Your task to perform on an android device: Open Reddit.com Image 0: 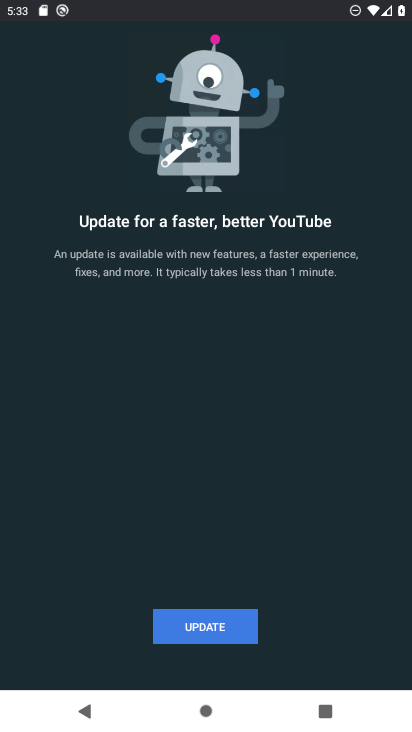
Step 0: press home button
Your task to perform on an android device: Open Reddit.com Image 1: 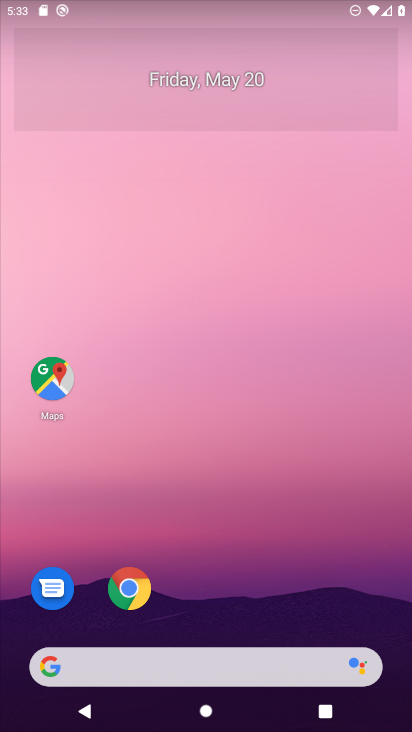
Step 1: click (127, 599)
Your task to perform on an android device: Open Reddit.com Image 2: 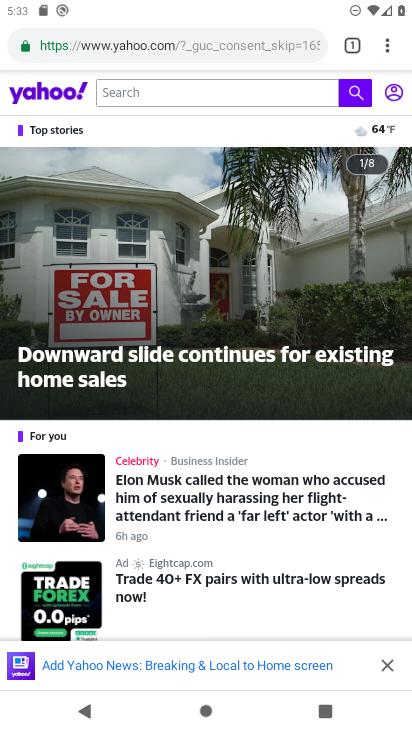
Step 2: press back button
Your task to perform on an android device: Open Reddit.com Image 3: 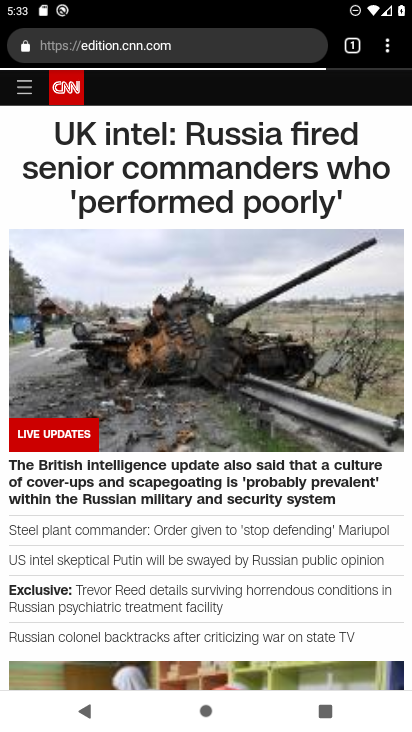
Step 3: click (148, 47)
Your task to perform on an android device: Open Reddit.com Image 4: 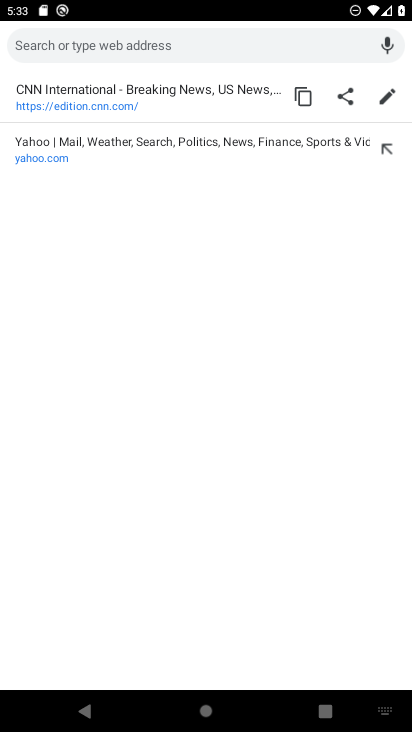
Step 4: type "www.reddit.com"
Your task to perform on an android device: Open Reddit.com Image 5: 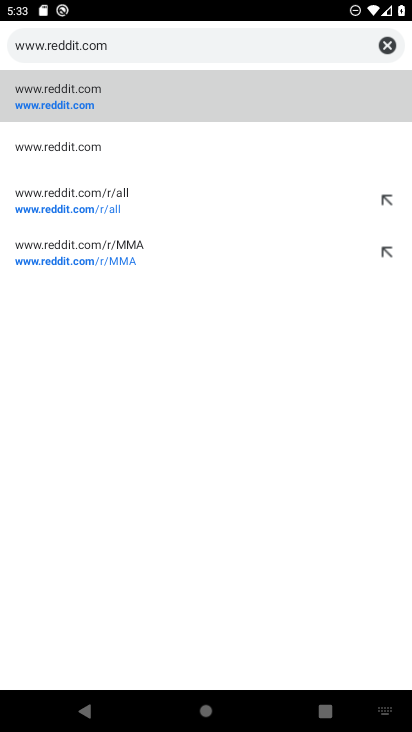
Step 5: click (54, 101)
Your task to perform on an android device: Open Reddit.com Image 6: 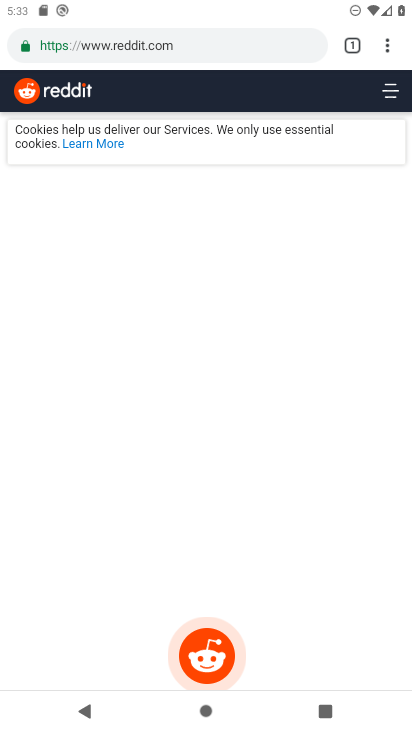
Step 6: task complete